Your task to perform on an android device: open app "Gmail" (install if not already installed) Image 0: 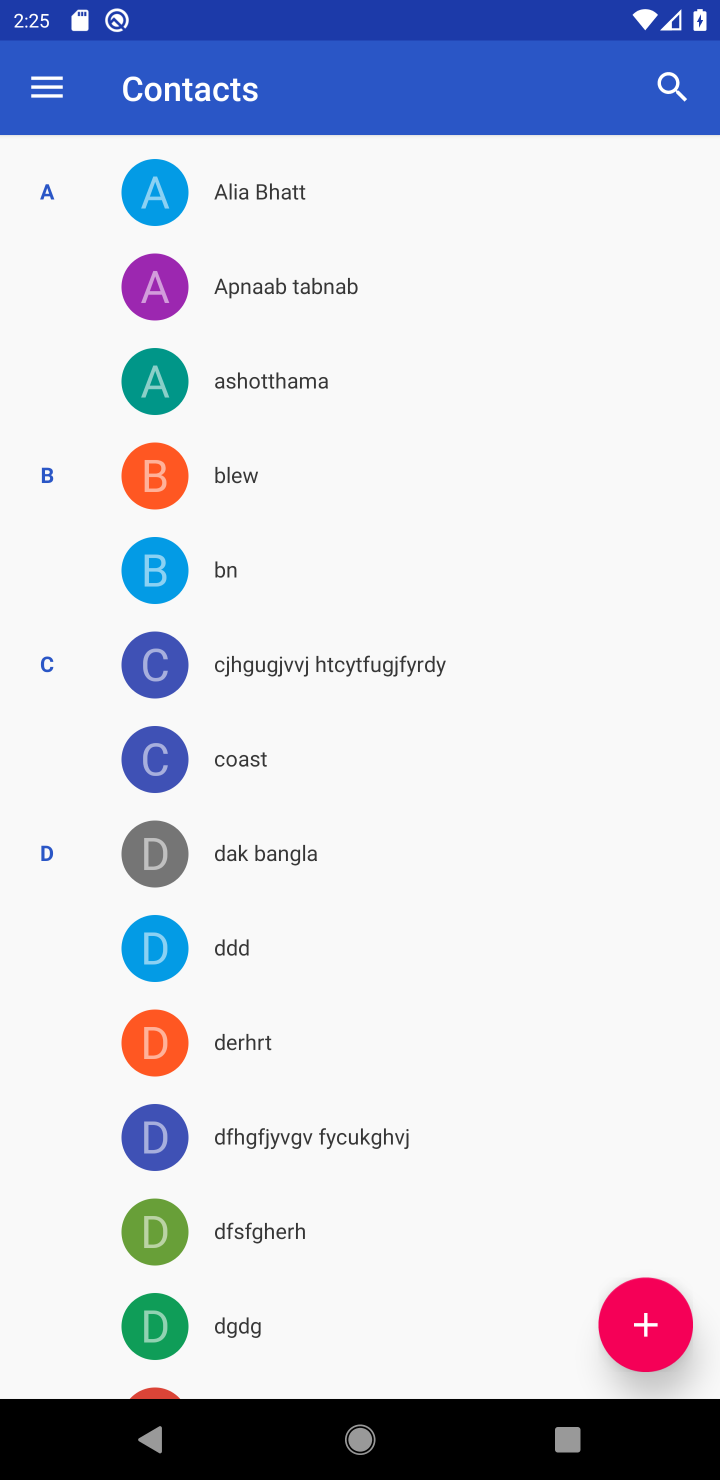
Step 0: press home button
Your task to perform on an android device: open app "Gmail" (install if not already installed) Image 1: 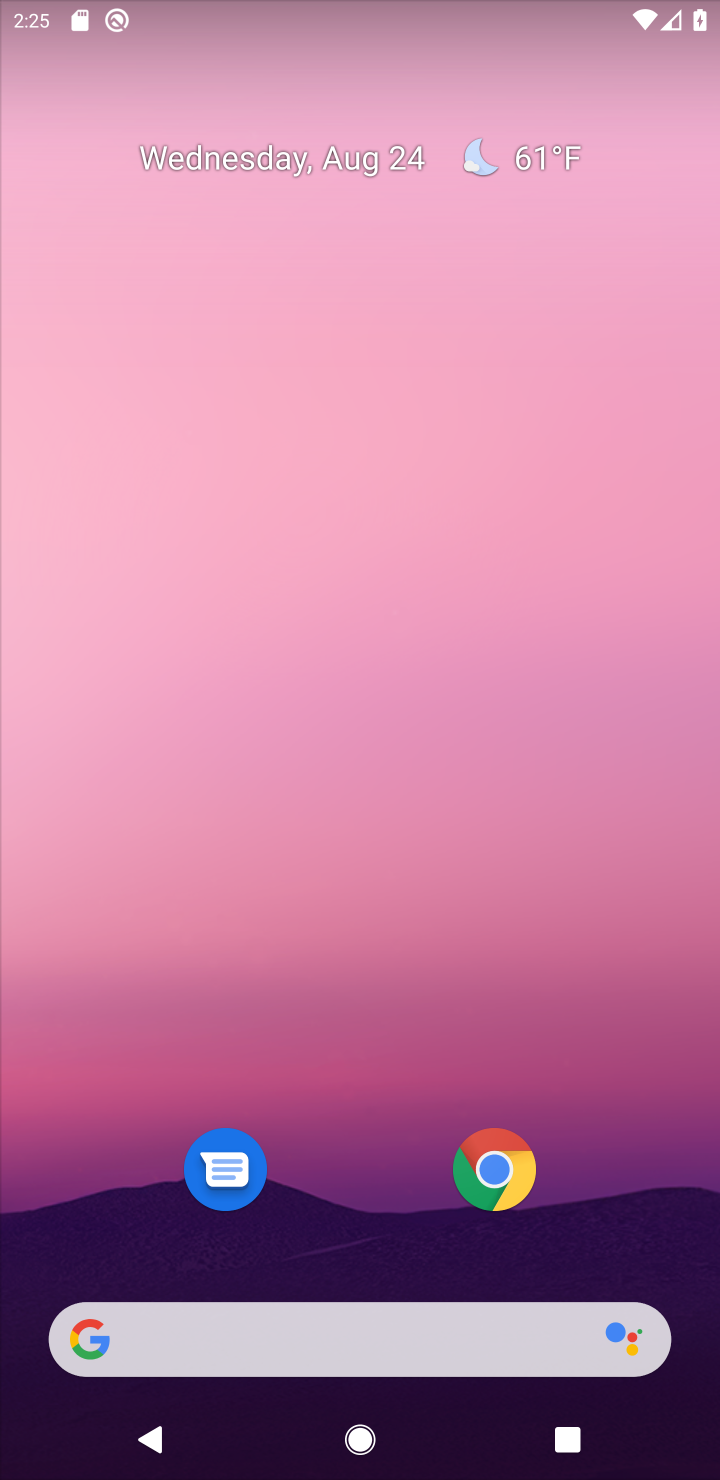
Step 1: drag from (418, 1285) to (310, 145)
Your task to perform on an android device: open app "Gmail" (install if not already installed) Image 2: 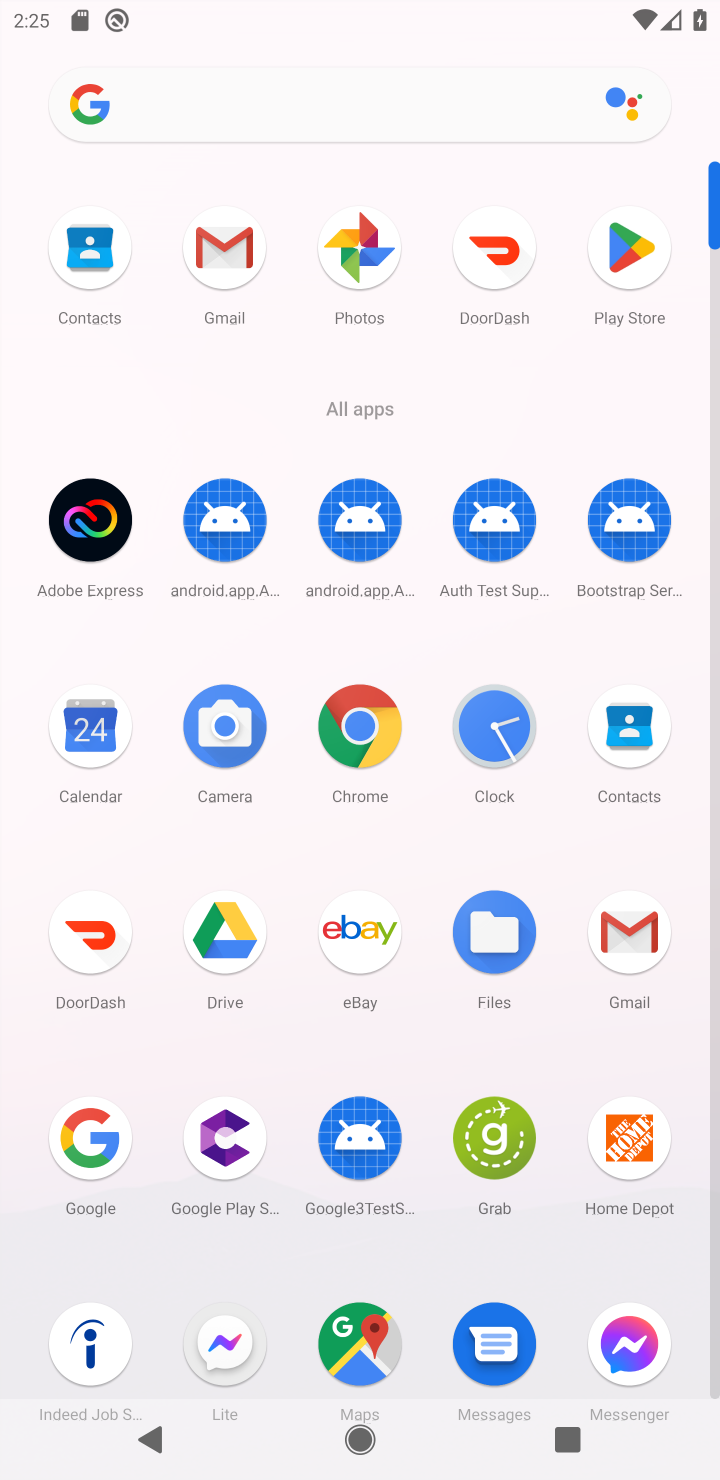
Step 2: click (616, 938)
Your task to perform on an android device: open app "Gmail" (install if not already installed) Image 3: 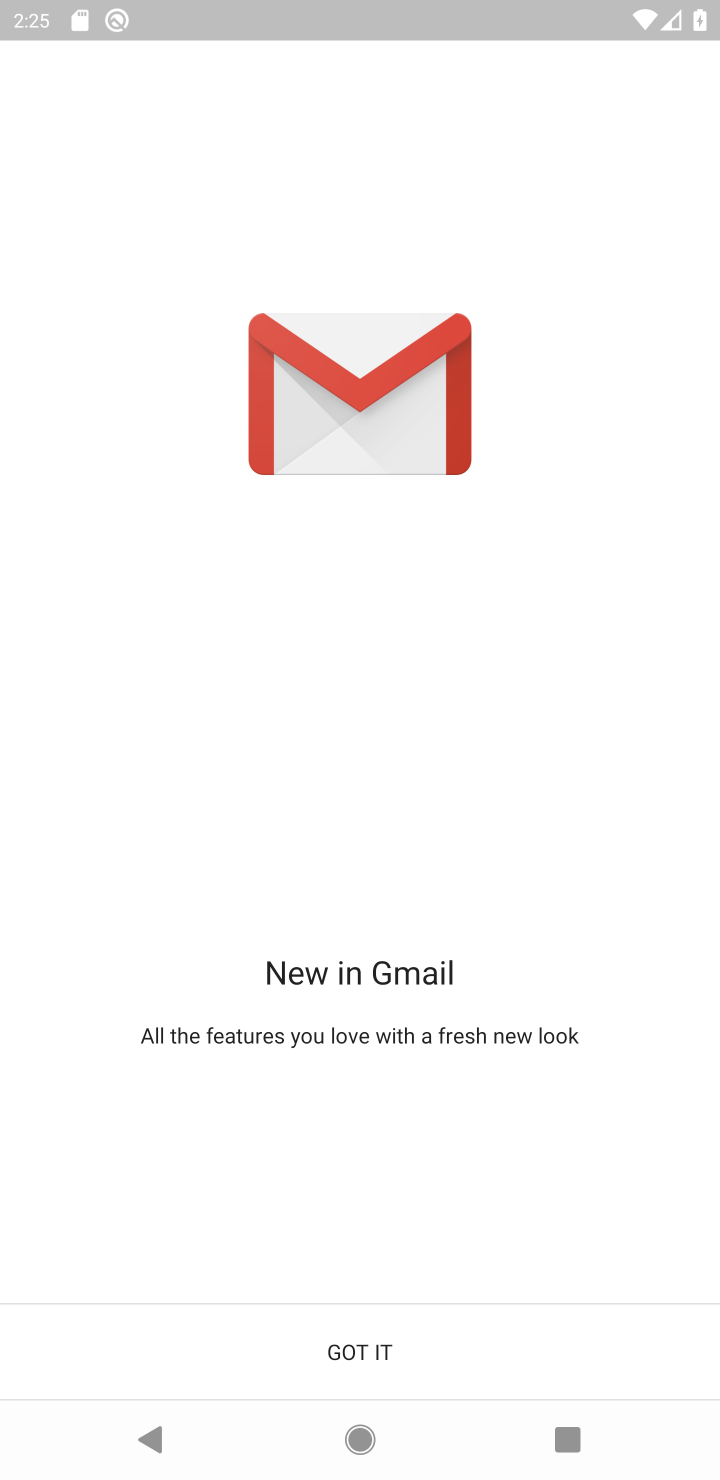
Step 3: click (452, 1346)
Your task to perform on an android device: open app "Gmail" (install if not already installed) Image 4: 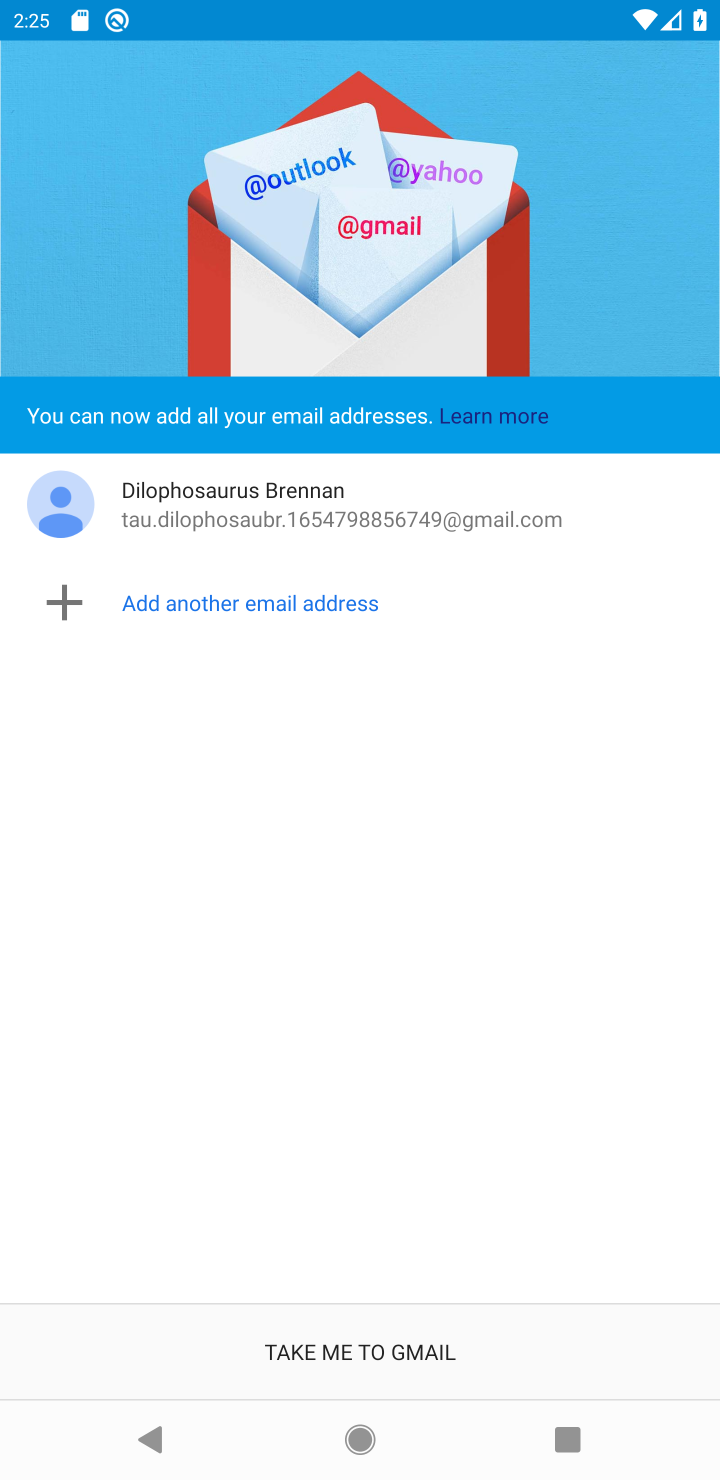
Step 4: click (452, 1346)
Your task to perform on an android device: open app "Gmail" (install if not already installed) Image 5: 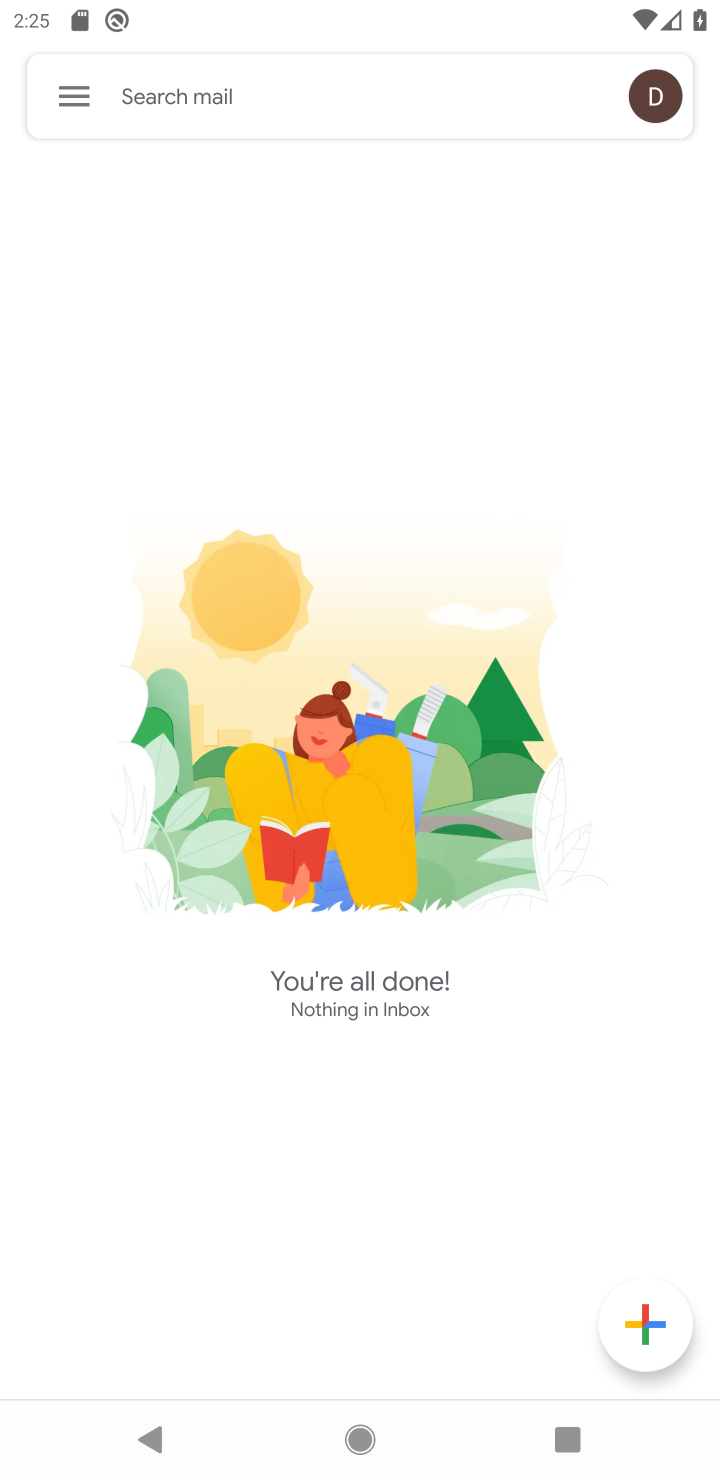
Step 5: task complete